Your task to perform on an android device: Open calendar and show me the third week of next month Image 0: 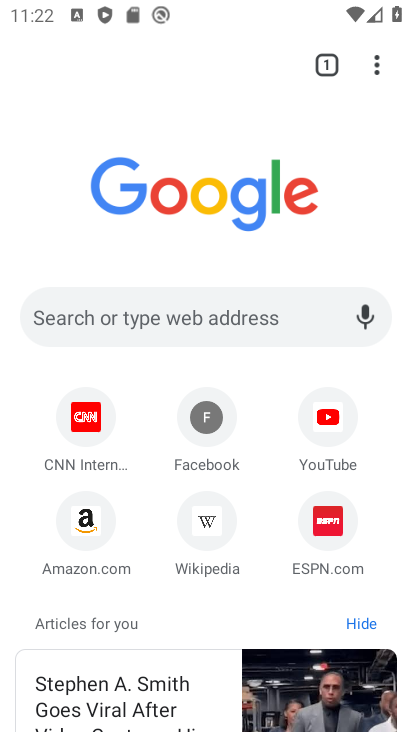
Step 0: press home button
Your task to perform on an android device: Open calendar and show me the third week of next month Image 1: 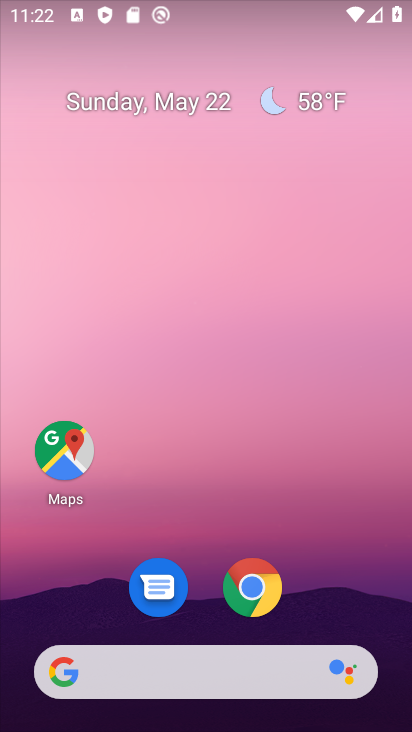
Step 1: drag from (228, 453) to (220, 0)
Your task to perform on an android device: Open calendar and show me the third week of next month Image 2: 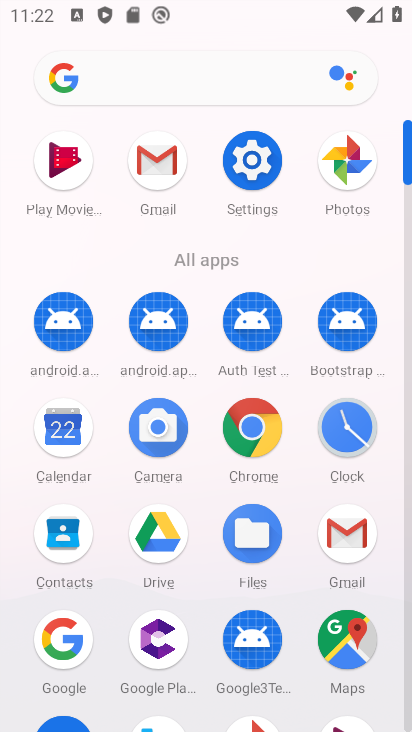
Step 2: click (75, 435)
Your task to perform on an android device: Open calendar and show me the third week of next month Image 3: 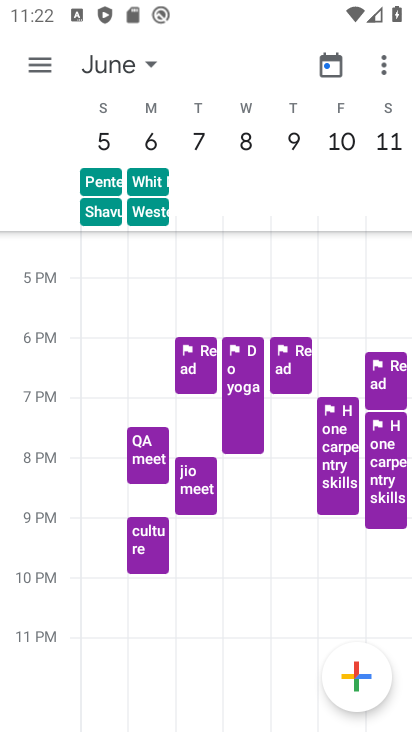
Step 3: task complete